Your task to perform on an android device: What's the weather? Image 0: 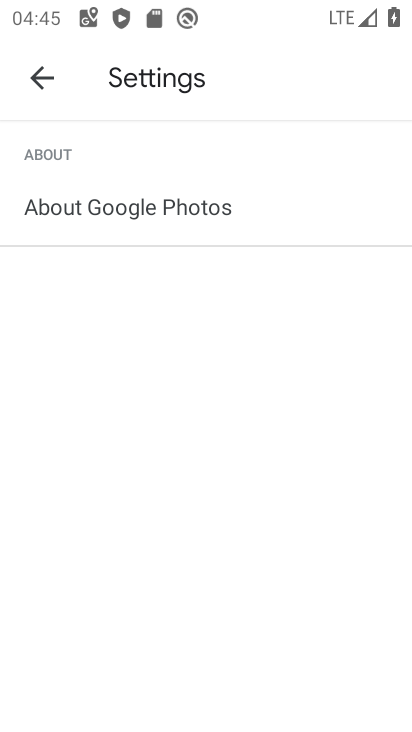
Step 0: press back button
Your task to perform on an android device: What's the weather? Image 1: 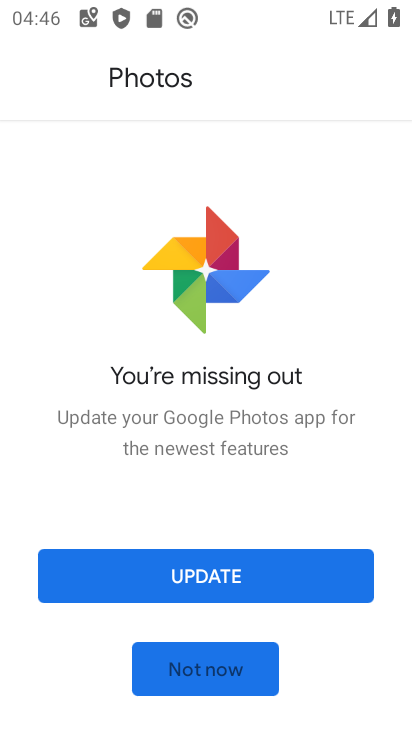
Step 1: press home button
Your task to perform on an android device: What's the weather? Image 2: 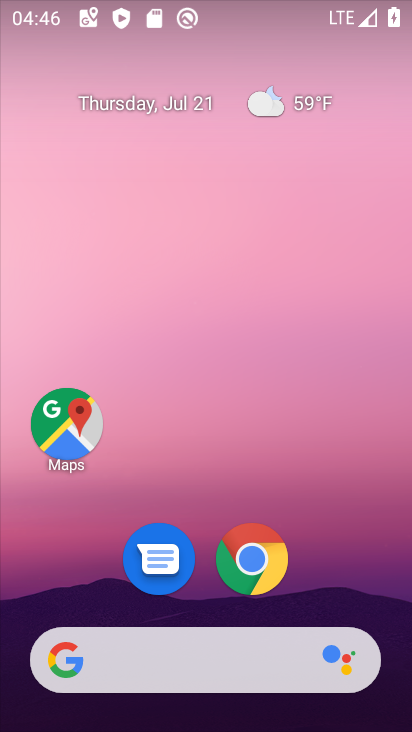
Step 2: click (154, 675)
Your task to perform on an android device: What's the weather? Image 3: 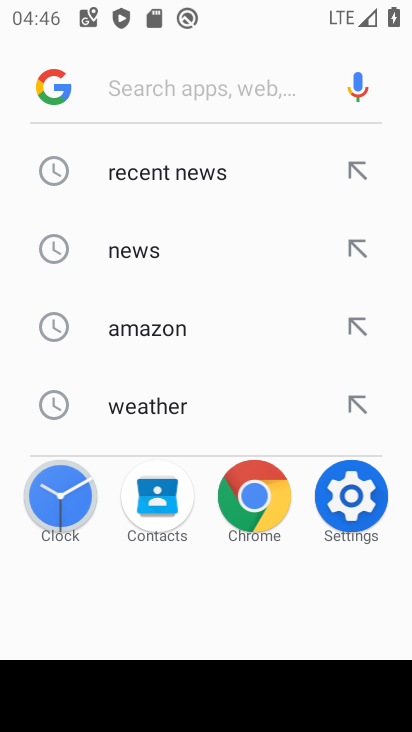
Step 3: click (140, 405)
Your task to perform on an android device: What's the weather? Image 4: 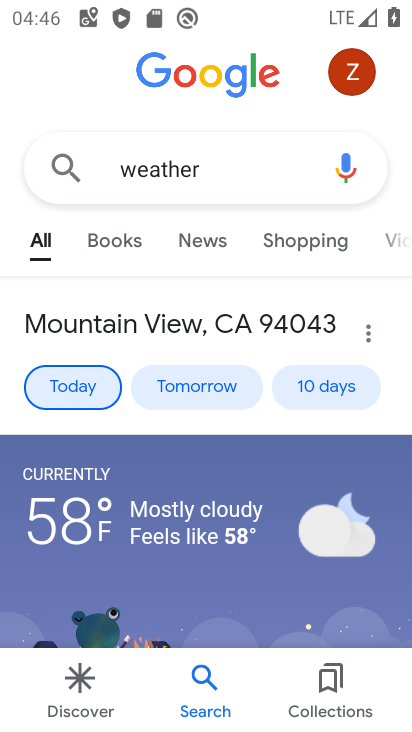
Step 4: task complete